Your task to perform on an android device: Open Wikipedia Image 0: 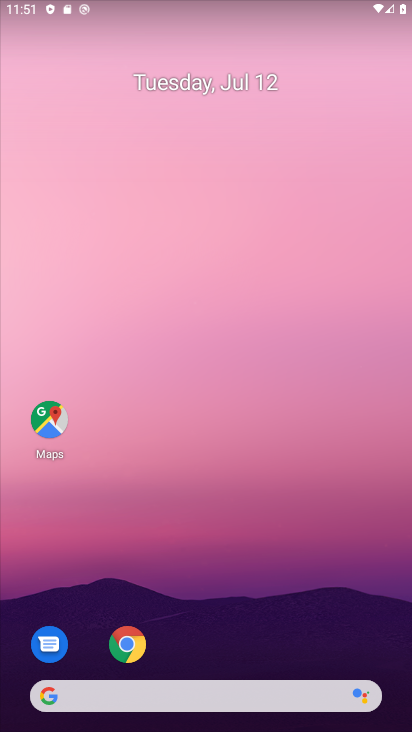
Step 0: drag from (198, 617) to (249, 91)
Your task to perform on an android device: Open Wikipedia Image 1: 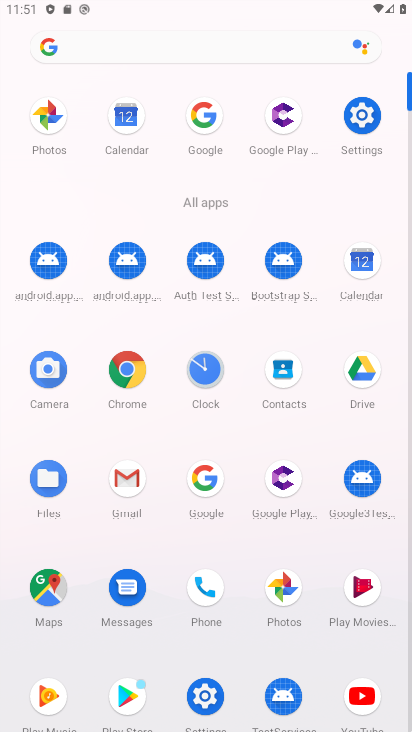
Step 1: click (126, 370)
Your task to perform on an android device: Open Wikipedia Image 2: 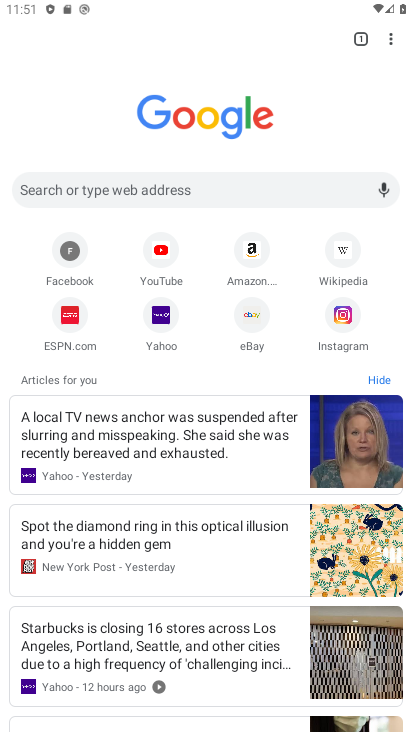
Step 2: click (347, 249)
Your task to perform on an android device: Open Wikipedia Image 3: 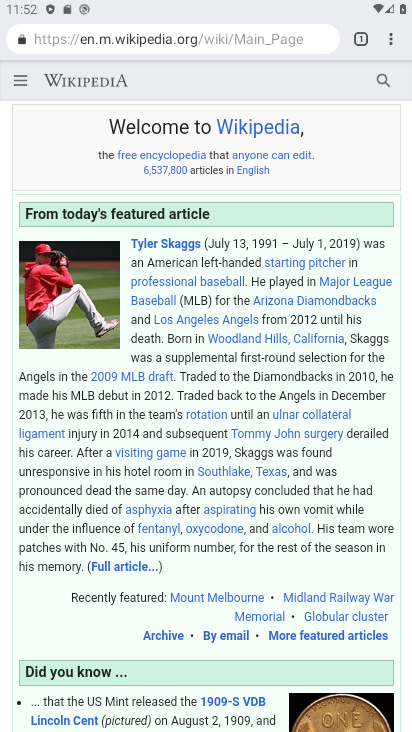
Step 3: task complete